Your task to perform on an android device: Search for pizza restaurants on Maps Image 0: 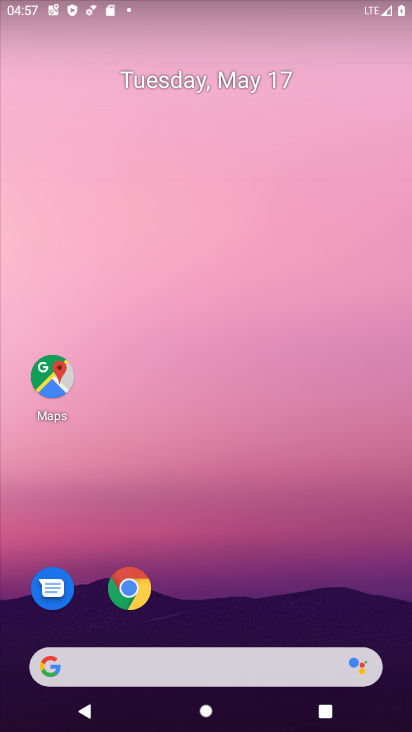
Step 0: click (53, 376)
Your task to perform on an android device: Search for pizza restaurants on Maps Image 1: 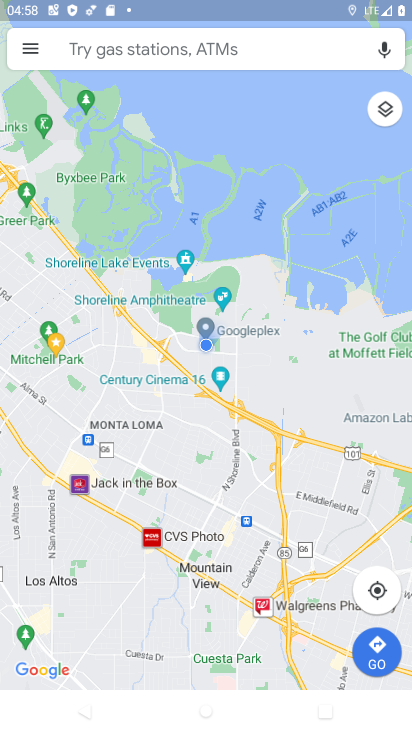
Step 1: click (159, 51)
Your task to perform on an android device: Search for pizza restaurants on Maps Image 2: 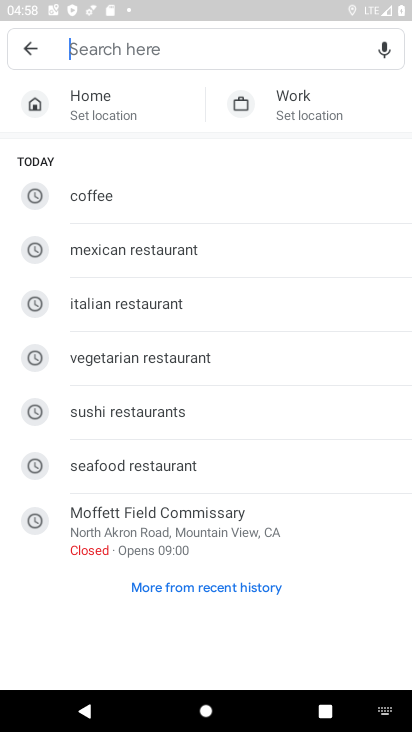
Step 2: type "pizza reataurants"
Your task to perform on an android device: Search for pizza restaurants on Maps Image 3: 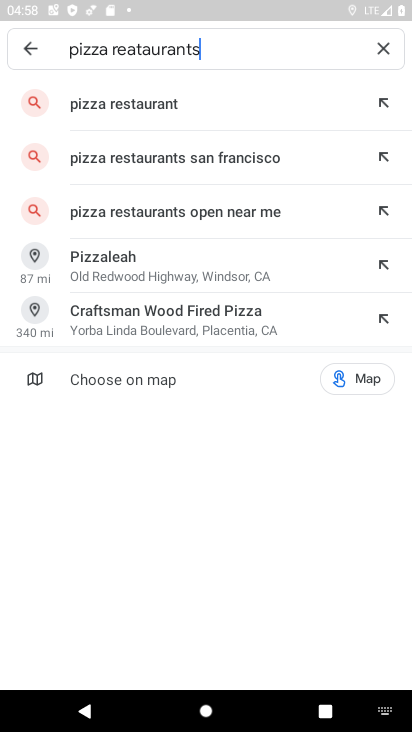
Step 3: click (159, 106)
Your task to perform on an android device: Search for pizza restaurants on Maps Image 4: 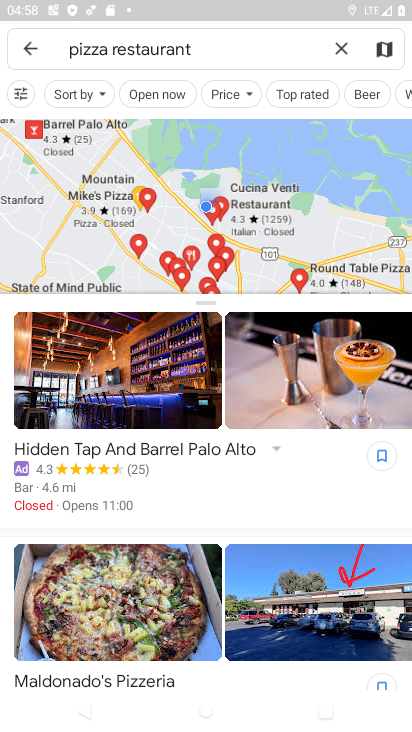
Step 4: task complete